Your task to perform on an android device: make emails show in primary in the gmail app Image 0: 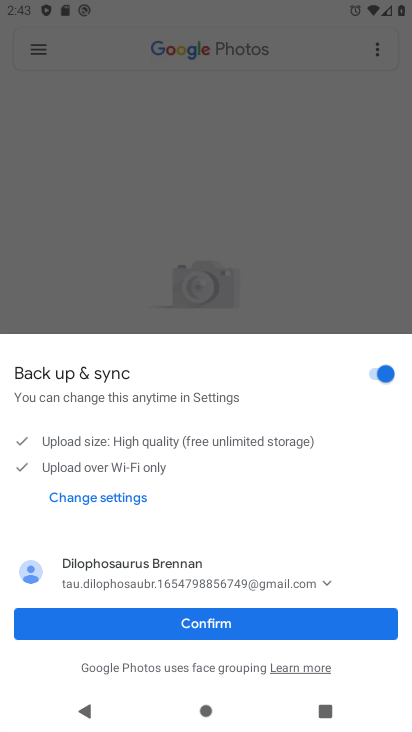
Step 0: press home button
Your task to perform on an android device: make emails show in primary in the gmail app Image 1: 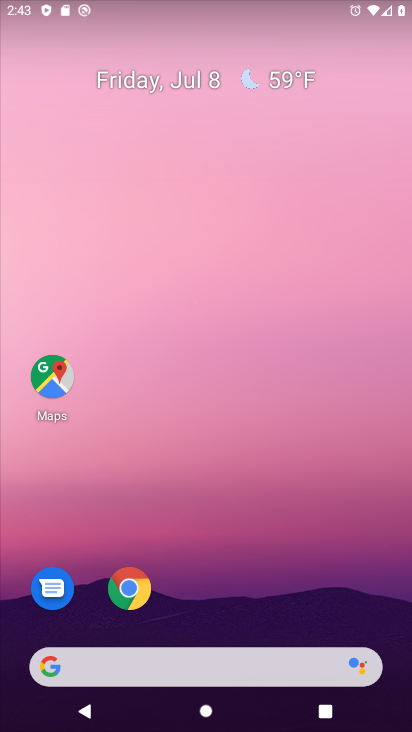
Step 1: drag from (261, 569) to (286, 32)
Your task to perform on an android device: make emails show in primary in the gmail app Image 2: 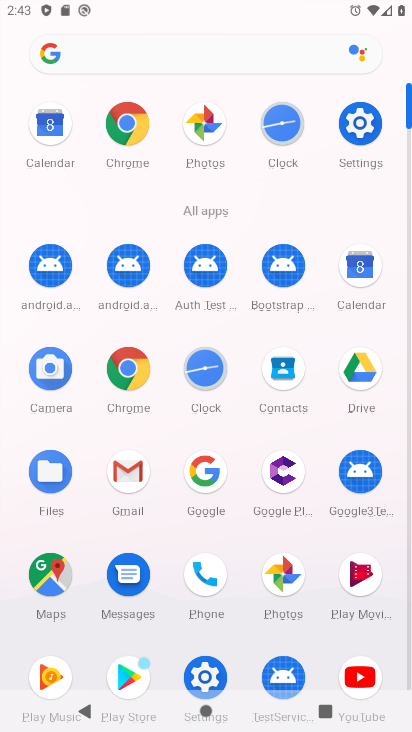
Step 2: click (133, 485)
Your task to perform on an android device: make emails show in primary in the gmail app Image 3: 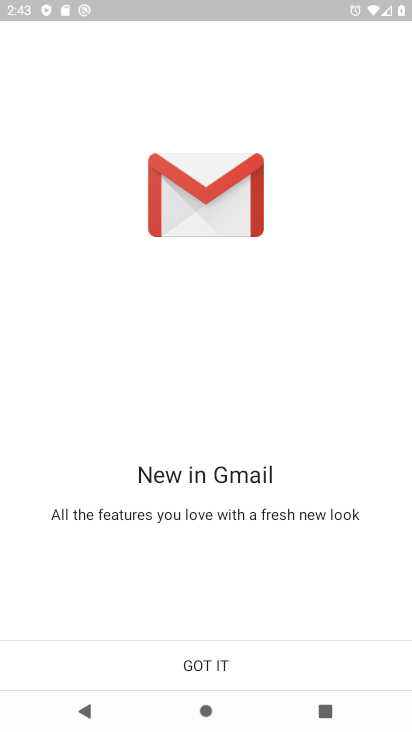
Step 3: click (203, 672)
Your task to perform on an android device: make emails show in primary in the gmail app Image 4: 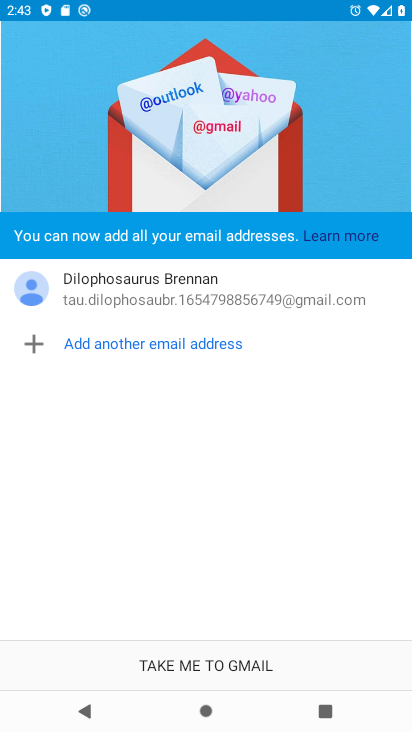
Step 4: click (212, 665)
Your task to perform on an android device: make emails show in primary in the gmail app Image 5: 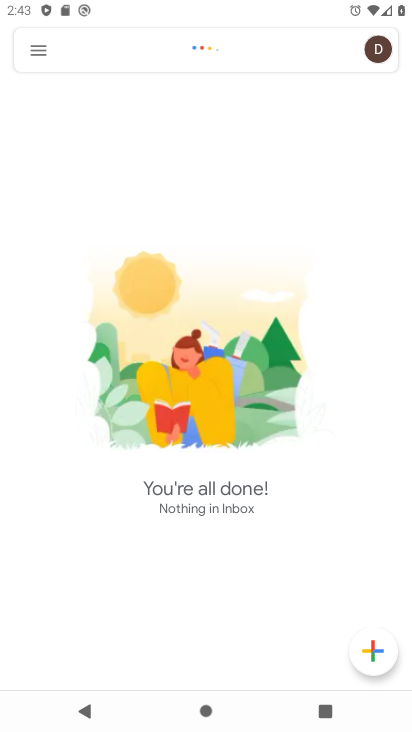
Step 5: click (32, 58)
Your task to perform on an android device: make emails show in primary in the gmail app Image 6: 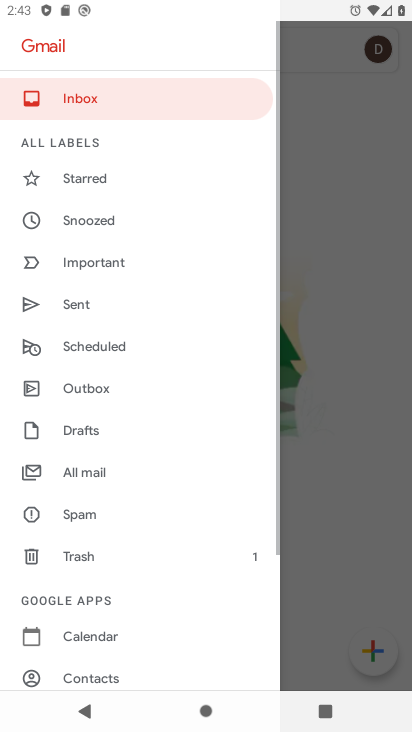
Step 6: drag from (96, 666) to (104, 329)
Your task to perform on an android device: make emails show in primary in the gmail app Image 7: 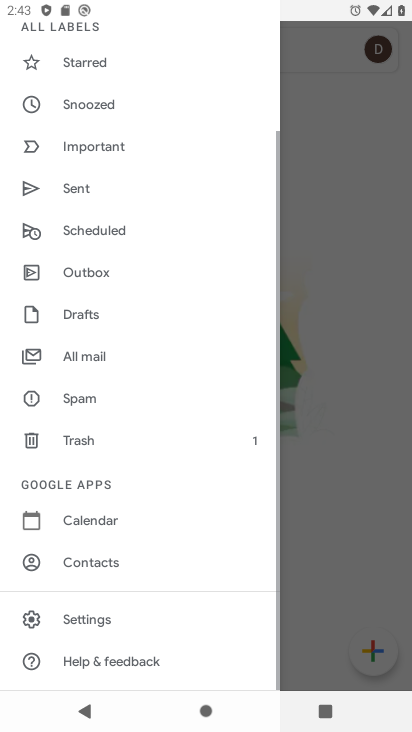
Step 7: click (80, 617)
Your task to perform on an android device: make emails show in primary in the gmail app Image 8: 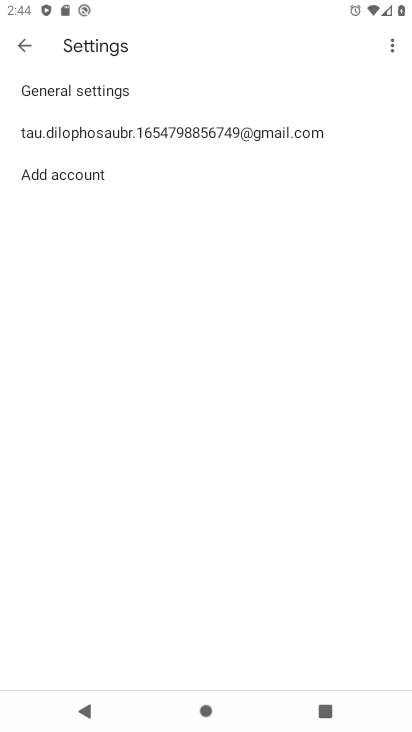
Step 8: click (80, 138)
Your task to perform on an android device: make emails show in primary in the gmail app Image 9: 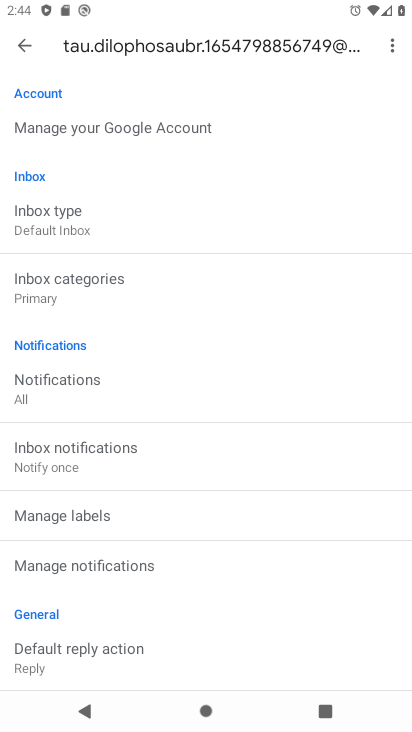
Step 9: click (71, 219)
Your task to perform on an android device: make emails show in primary in the gmail app Image 10: 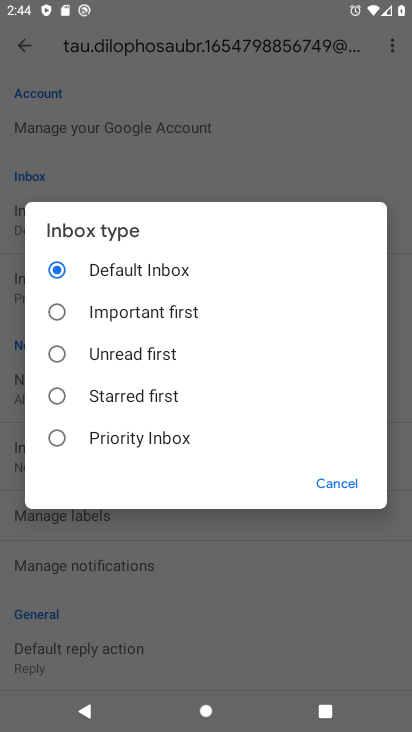
Step 10: click (344, 480)
Your task to perform on an android device: make emails show in primary in the gmail app Image 11: 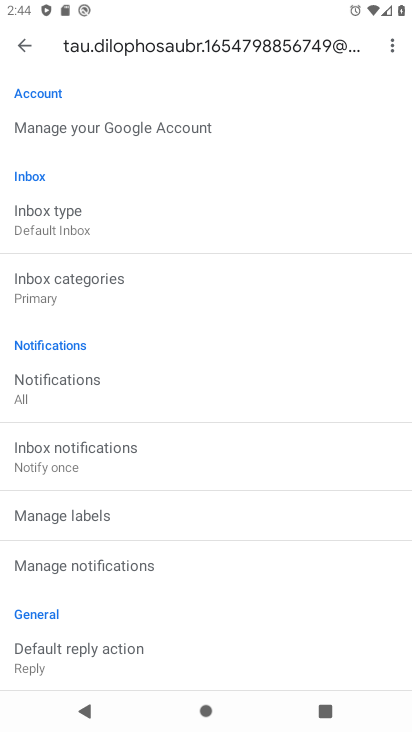
Step 11: task complete